Your task to perform on an android device: Open the calendar and show me this week's events? Image 0: 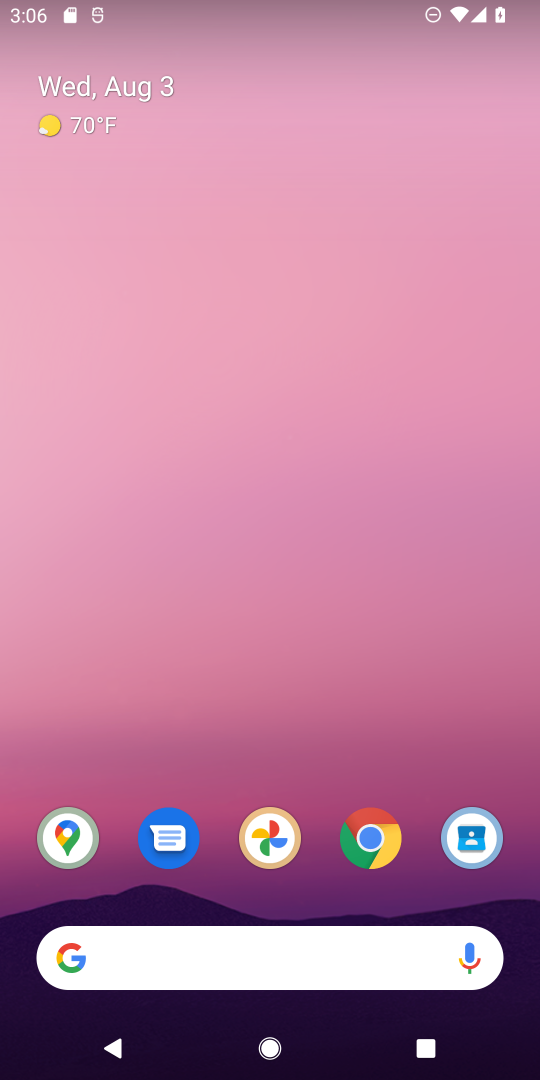
Step 0: drag from (150, 911) to (149, 400)
Your task to perform on an android device: Open the calendar and show me this week's events? Image 1: 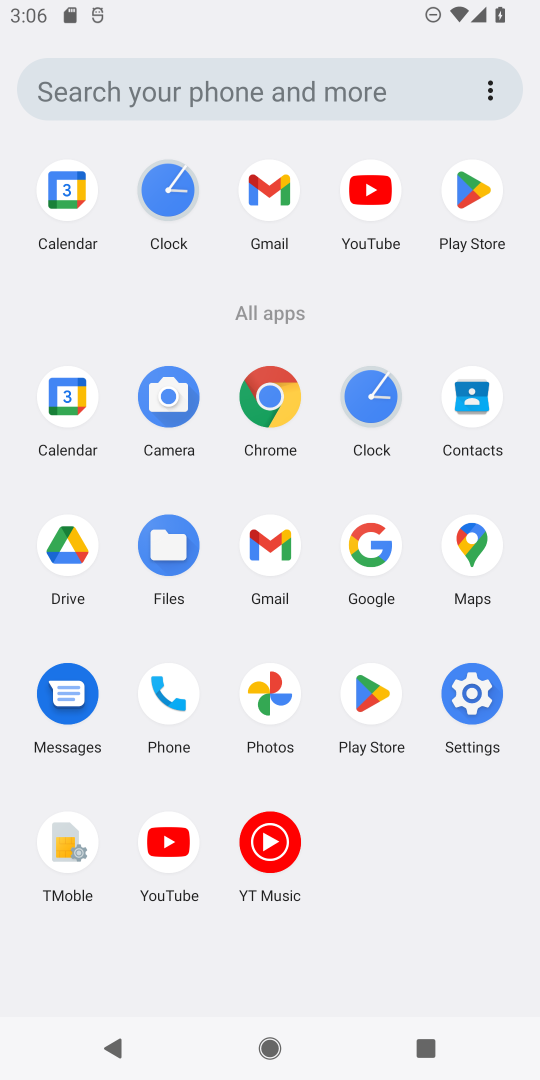
Step 1: click (54, 187)
Your task to perform on an android device: Open the calendar and show me this week's events? Image 2: 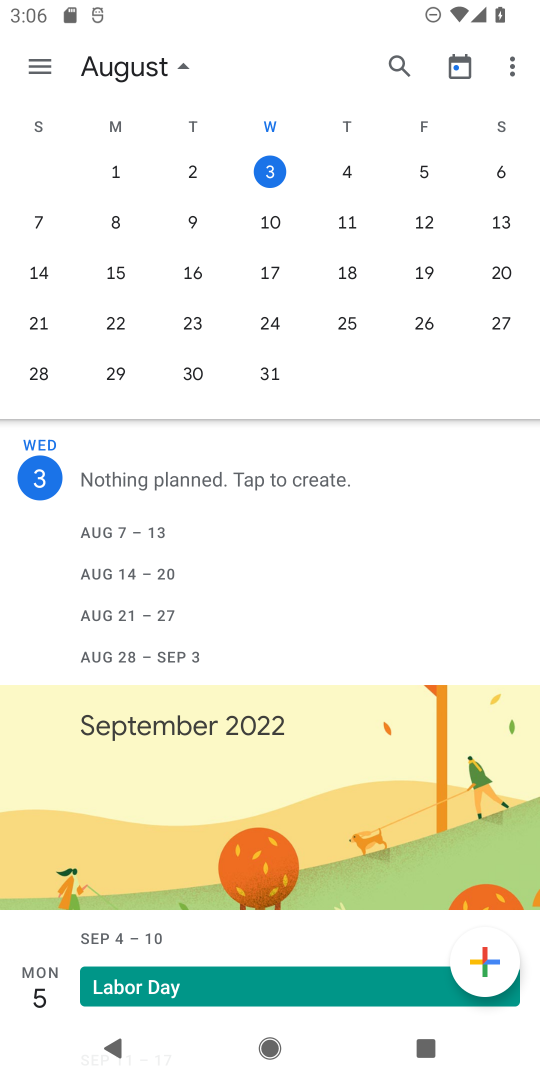
Step 2: click (260, 161)
Your task to perform on an android device: Open the calendar and show me this week's events? Image 3: 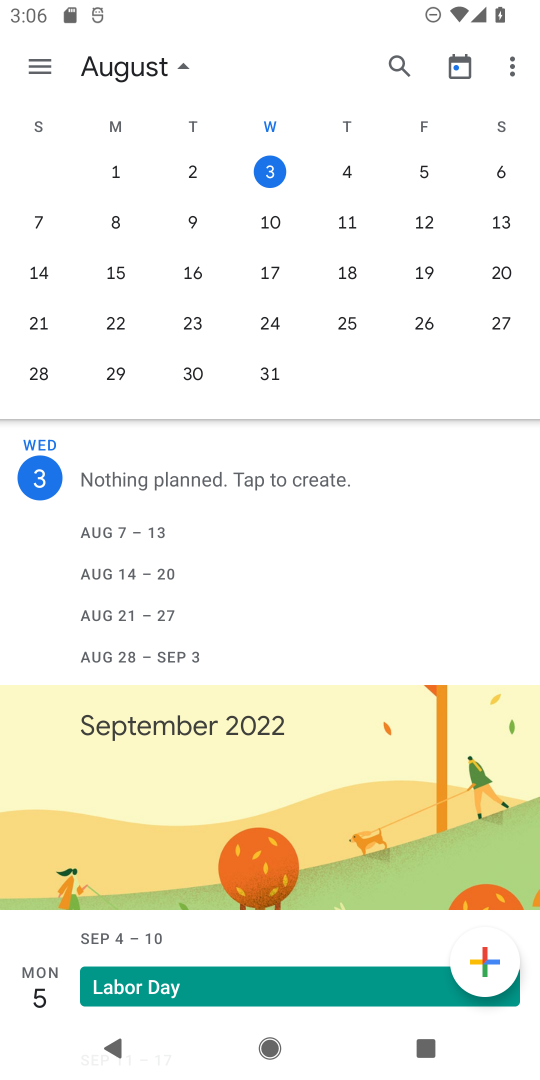
Step 3: click (325, 161)
Your task to perform on an android device: Open the calendar and show me this week's events? Image 4: 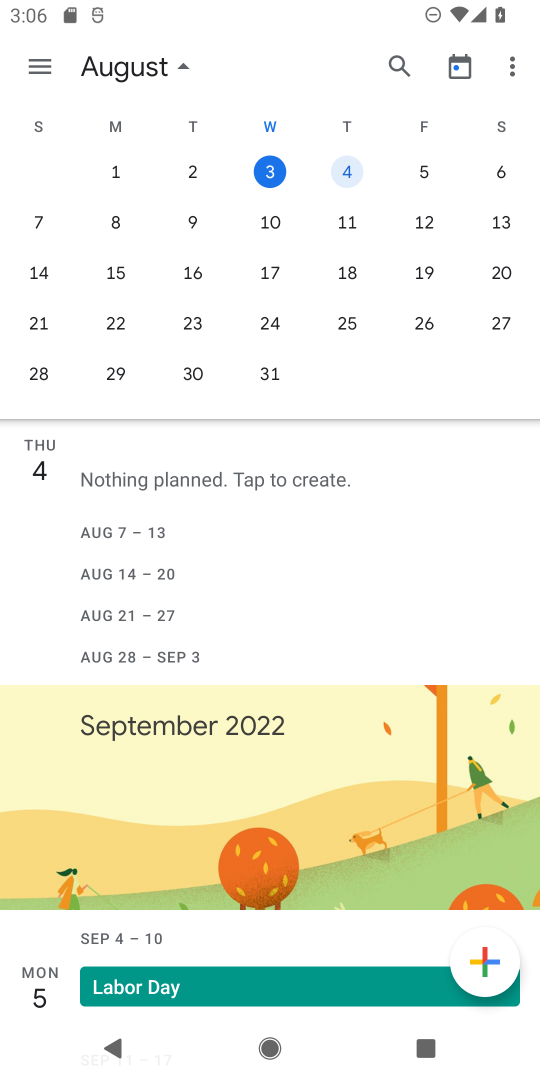
Step 4: click (423, 158)
Your task to perform on an android device: Open the calendar and show me this week's events? Image 5: 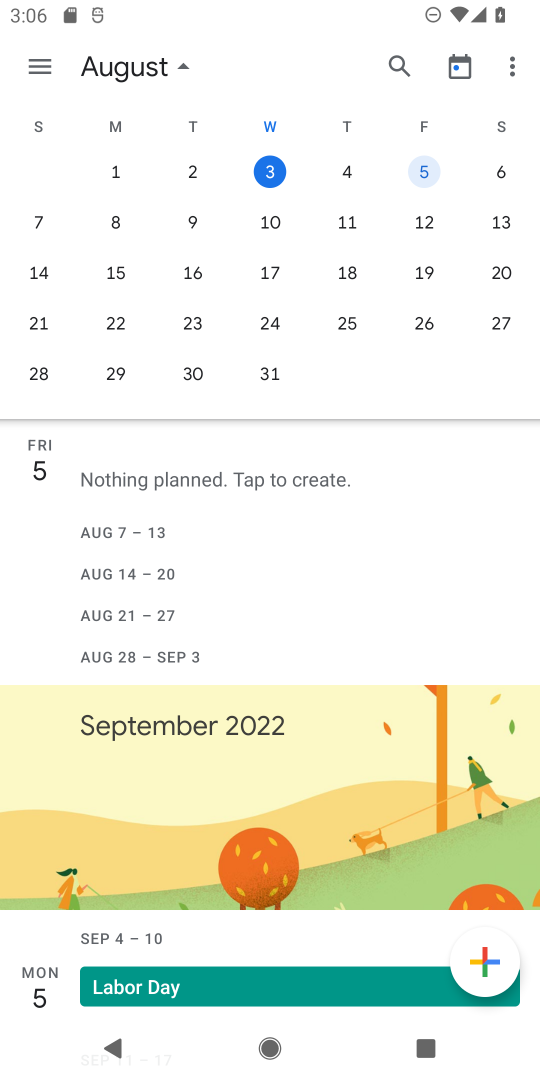
Step 5: click (503, 169)
Your task to perform on an android device: Open the calendar and show me this week's events? Image 6: 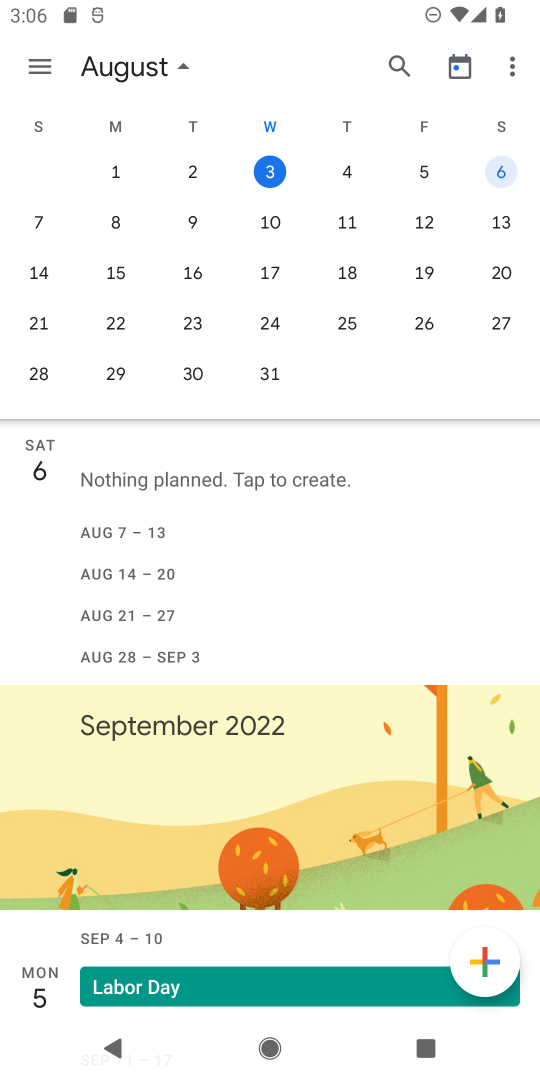
Step 6: task complete